Your task to perform on an android device: Go to calendar. Show me events next week Image 0: 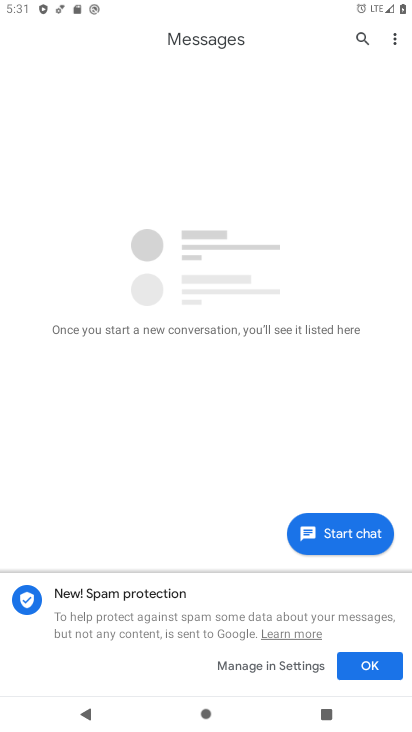
Step 0: press home button
Your task to perform on an android device: Go to calendar. Show me events next week Image 1: 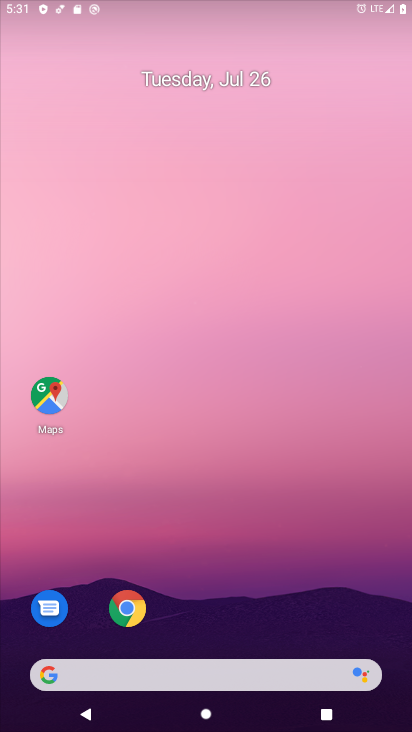
Step 1: drag from (386, 604) to (198, 31)
Your task to perform on an android device: Go to calendar. Show me events next week Image 2: 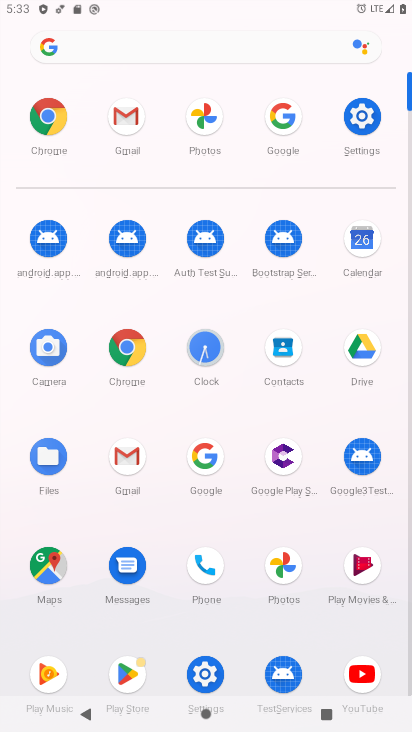
Step 2: click (382, 237)
Your task to perform on an android device: Go to calendar. Show me events next week Image 3: 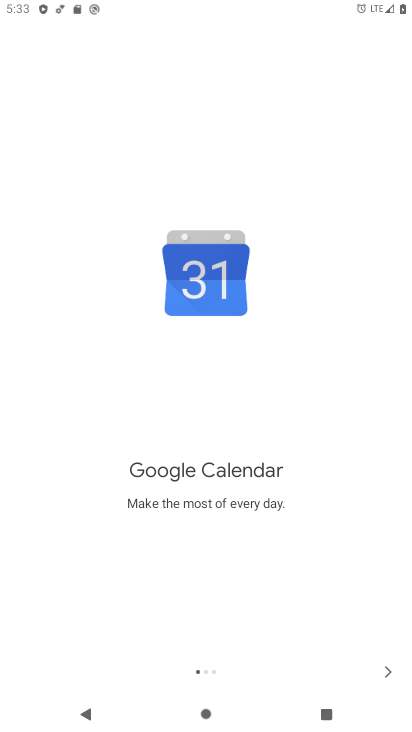
Step 3: click (378, 674)
Your task to perform on an android device: Go to calendar. Show me events next week Image 4: 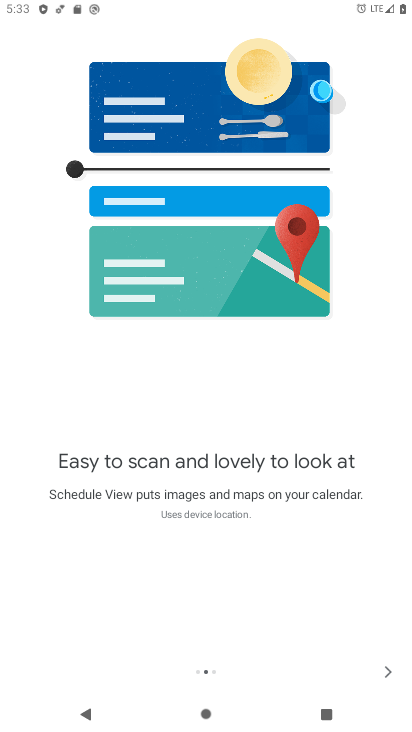
Step 4: click (386, 673)
Your task to perform on an android device: Go to calendar. Show me events next week Image 5: 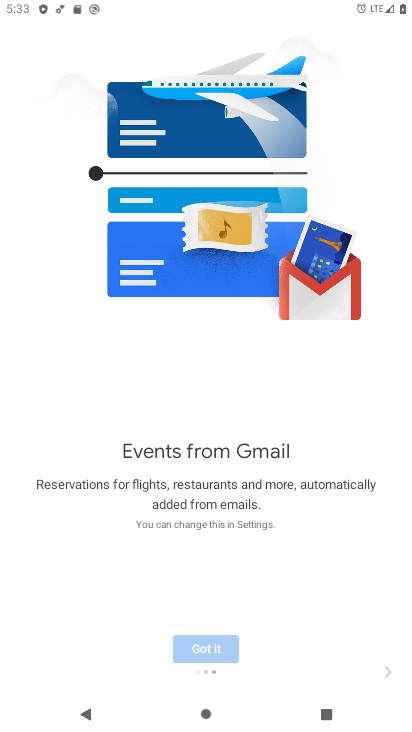
Step 5: click (386, 671)
Your task to perform on an android device: Go to calendar. Show me events next week Image 6: 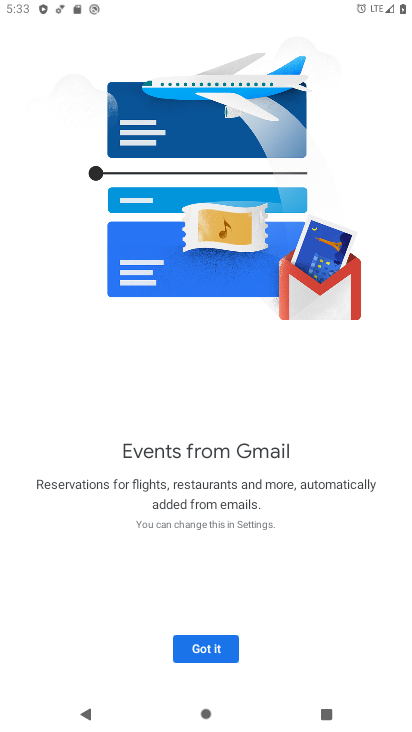
Step 6: click (199, 637)
Your task to perform on an android device: Go to calendar. Show me events next week Image 7: 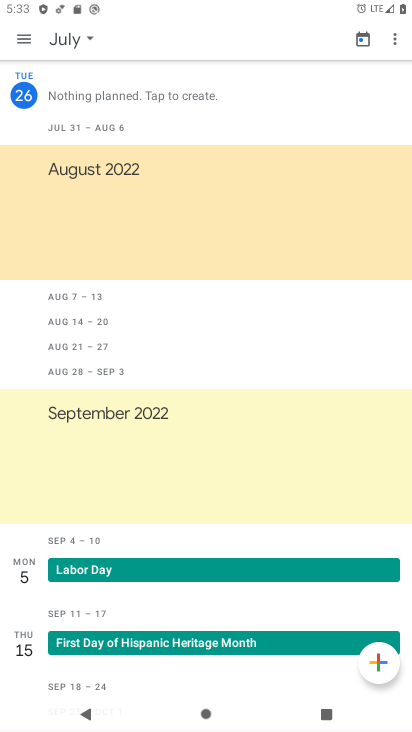
Step 7: task complete